Your task to perform on an android device: Open Chrome and go to the settings page Image 0: 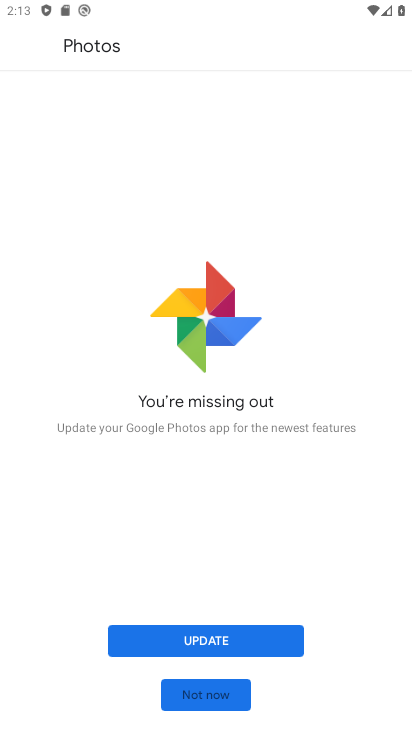
Step 0: press home button
Your task to perform on an android device: Open Chrome and go to the settings page Image 1: 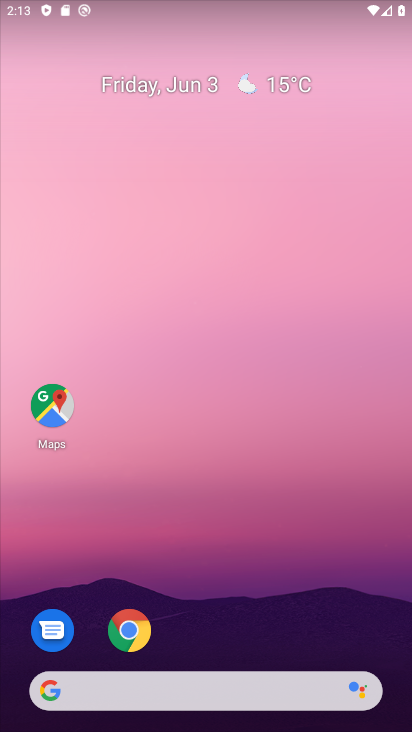
Step 1: drag from (326, 592) to (297, 9)
Your task to perform on an android device: Open Chrome and go to the settings page Image 2: 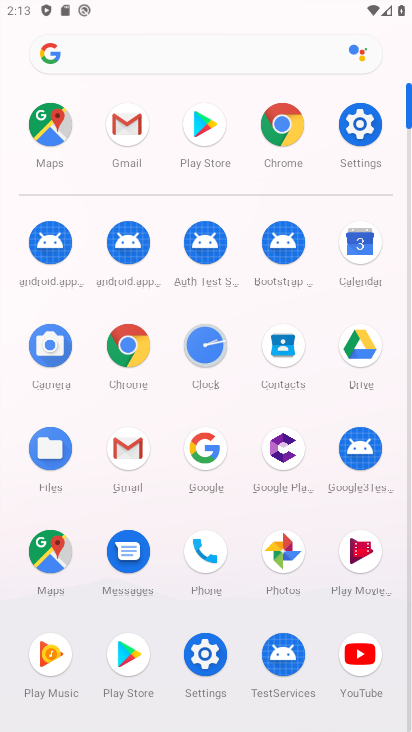
Step 2: click (141, 342)
Your task to perform on an android device: Open Chrome and go to the settings page Image 3: 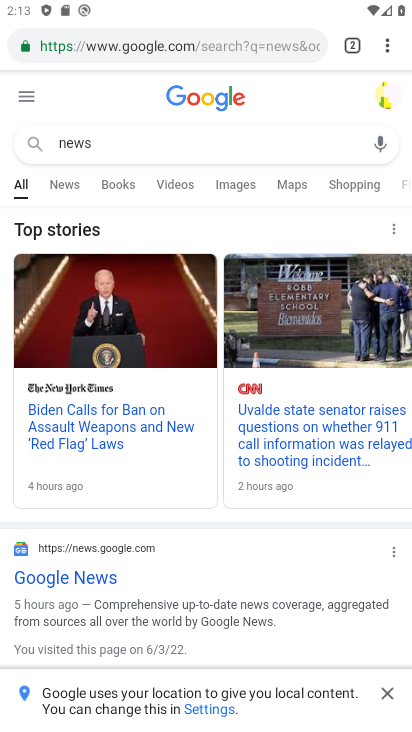
Step 3: task complete